Your task to perform on an android device: find photos in the google photos app Image 0: 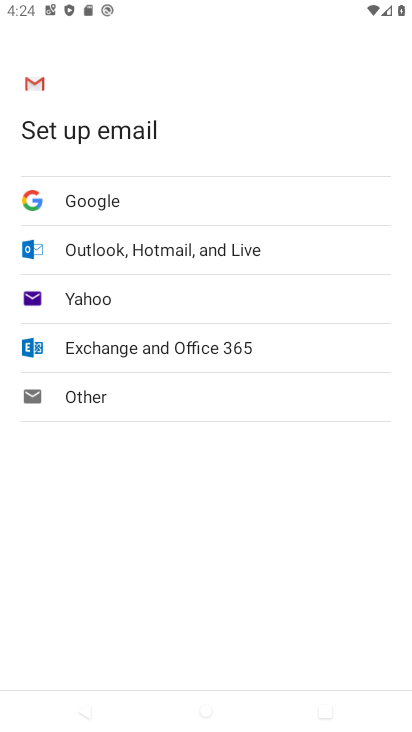
Step 0: press back button
Your task to perform on an android device: find photos in the google photos app Image 1: 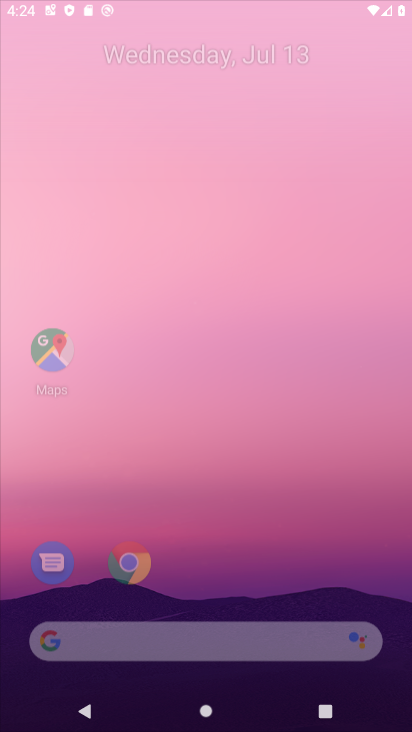
Step 1: press home button
Your task to perform on an android device: find photos in the google photos app Image 2: 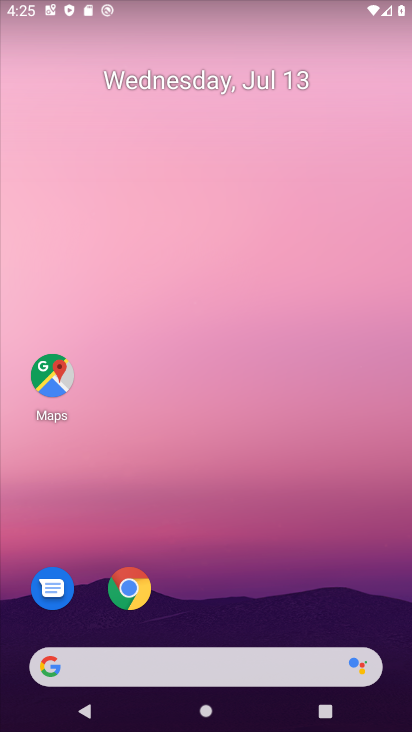
Step 2: drag from (43, 713) to (219, 233)
Your task to perform on an android device: find photos in the google photos app Image 3: 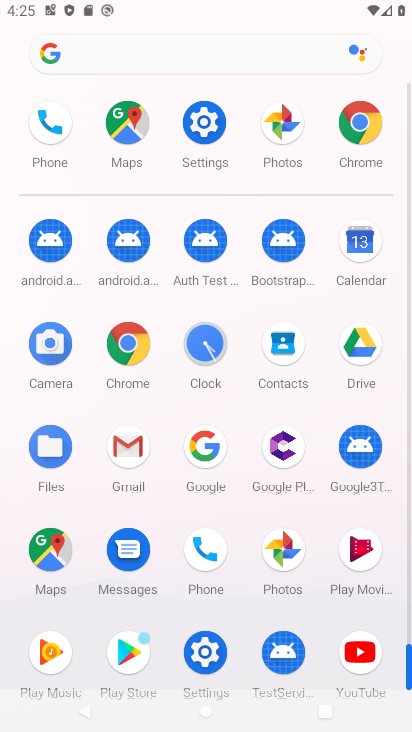
Step 3: click (277, 532)
Your task to perform on an android device: find photos in the google photos app Image 4: 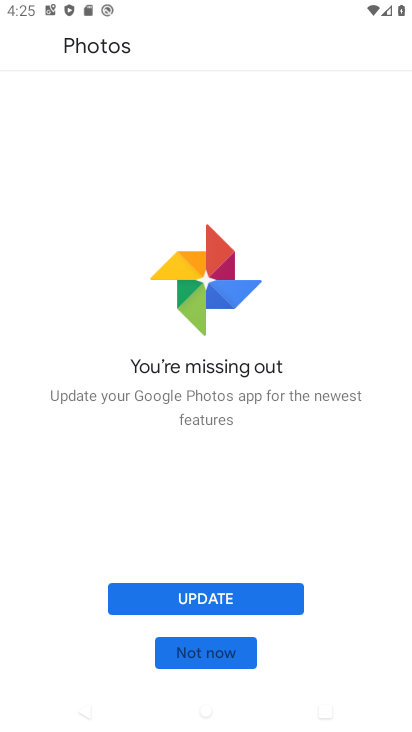
Step 4: click (180, 656)
Your task to perform on an android device: find photos in the google photos app Image 5: 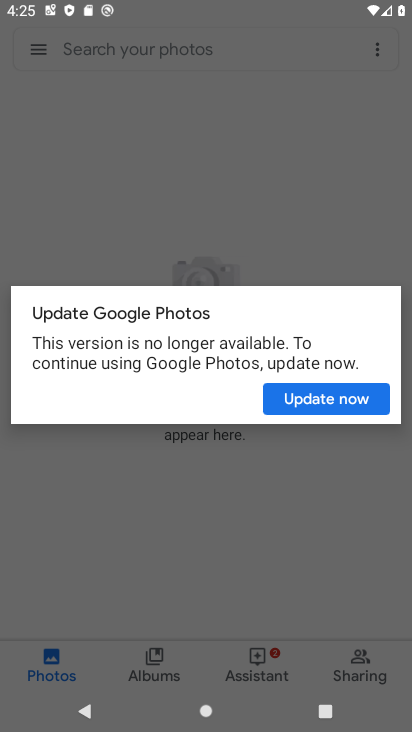
Step 5: click (324, 401)
Your task to perform on an android device: find photos in the google photos app Image 6: 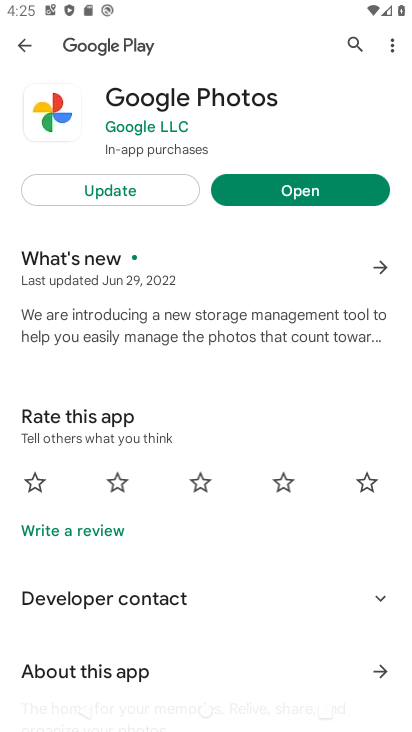
Step 6: click (263, 177)
Your task to perform on an android device: find photos in the google photos app Image 7: 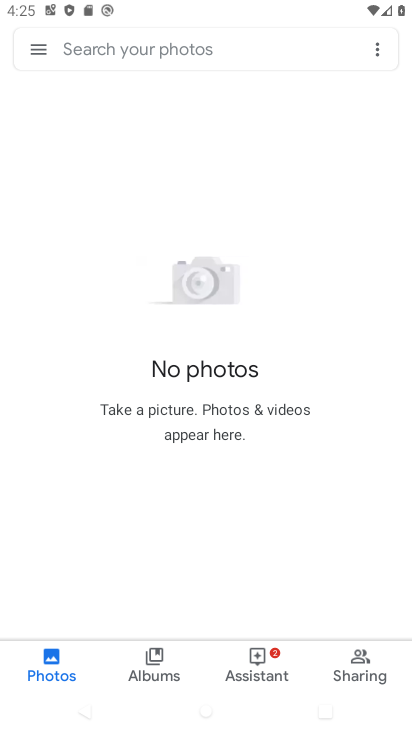
Step 7: task complete